Your task to perform on an android device: Open privacy settings Image 0: 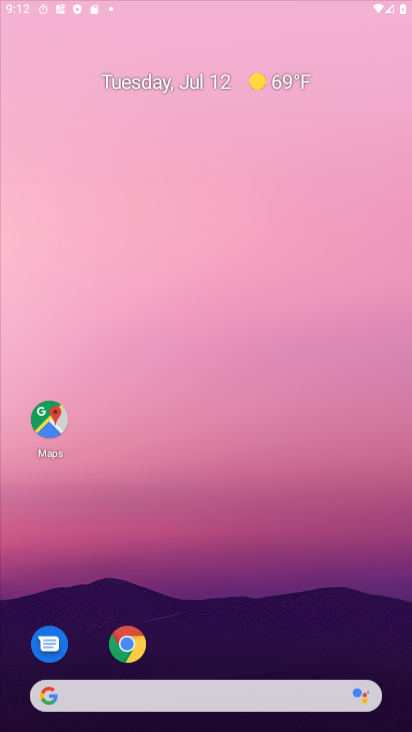
Step 0: press home button
Your task to perform on an android device: Open privacy settings Image 1: 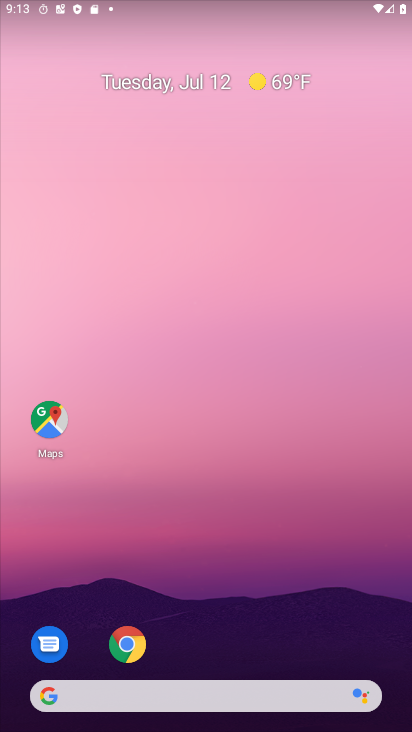
Step 1: drag from (240, 657) to (239, 20)
Your task to perform on an android device: Open privacy settings Image 2: 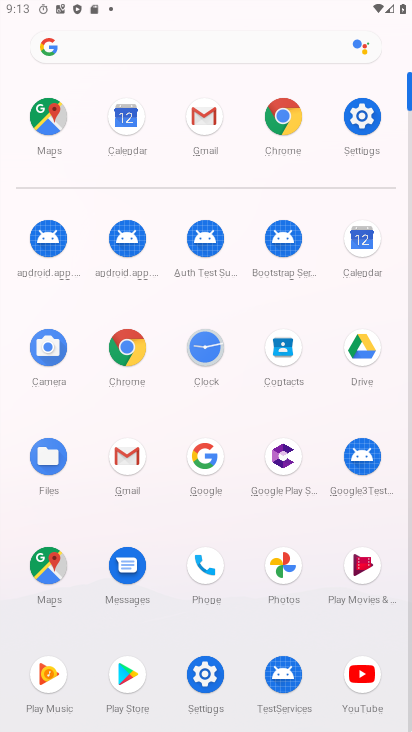
Step 2: click (364, 107)
Your task to perform on an android device: Open privacy settings Image 3: 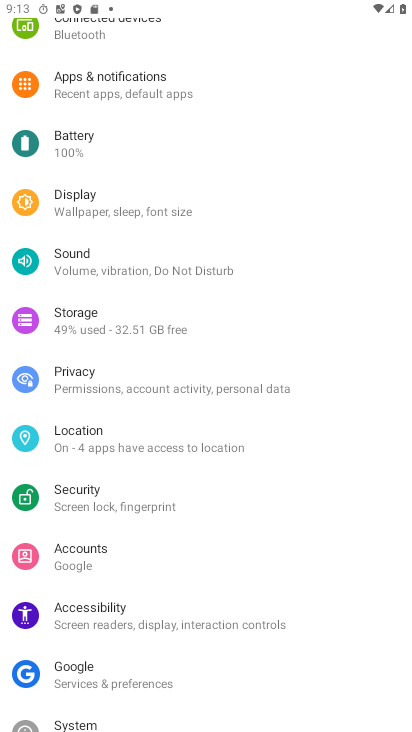
Step 3: click (112, 374)
Your task to perform on an android device: Open privacy settings Image 4: 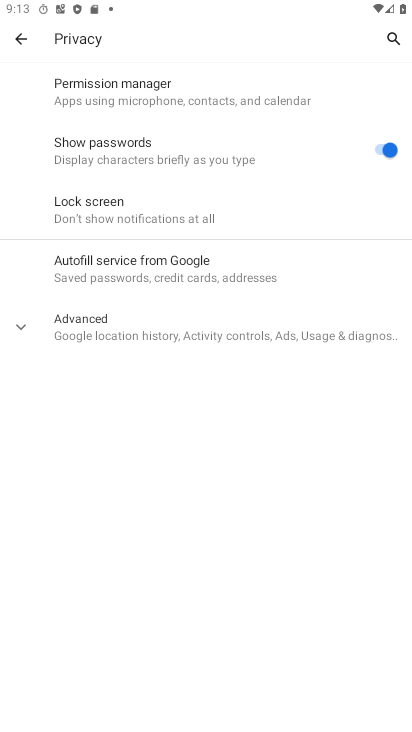
Step 4: click (19, 323)
Your task to perform on an android device: Open privacy settings Image 5: 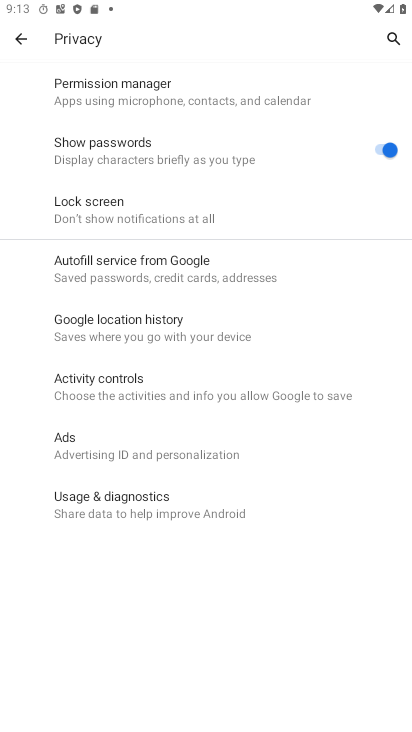
Step 5: task complete